Your task to perform on an android device: Search for Italian restaurants on Maps Image 0: 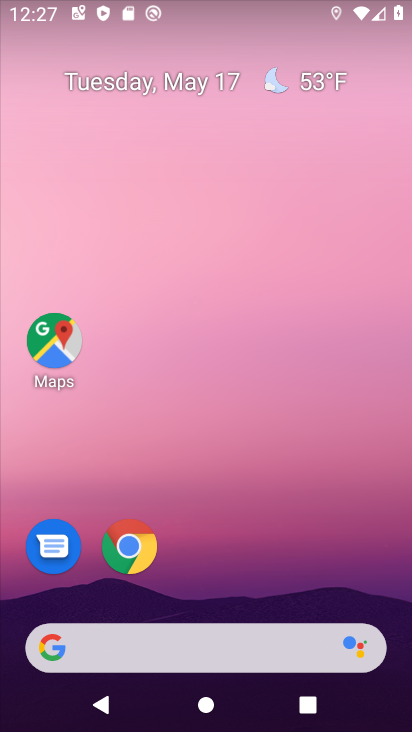
Step 0: drag from (229, 548) to (196, 64)
Your task to perform on an android device: Search for Italian restaurants on Maps Image 1: 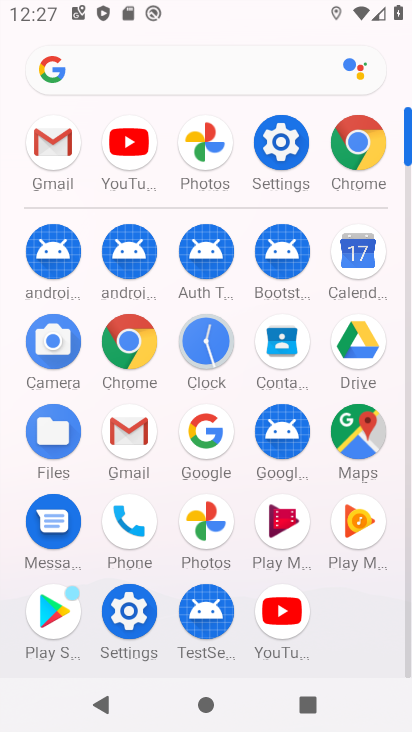
Step 1: drag from (207, 433) to (167, 405)
Your task to perform on an android device: Search for Italian restaurants on Maps Image 2: 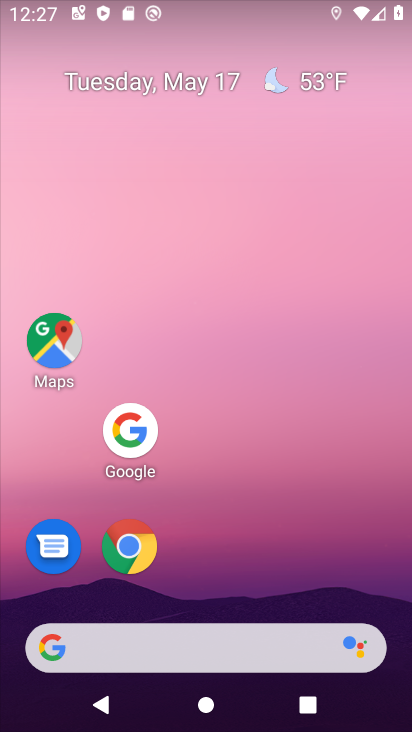
Step 2: click (85, 345)
Your task to perform on an android device: Search for Italian restaurants on Maps Image 3: 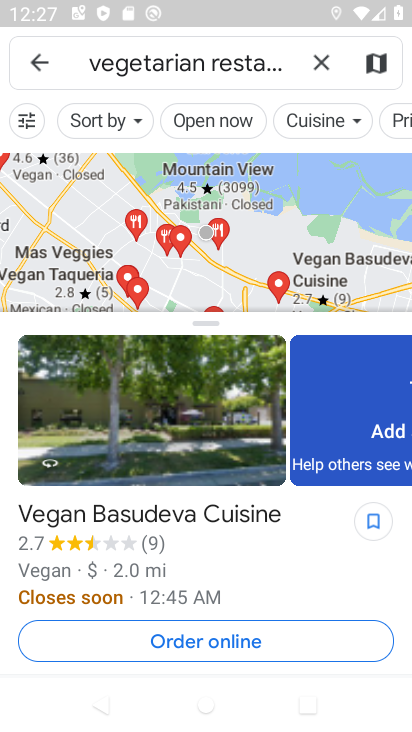
Step 3: click (318, 63)
Your task to perform on an android device: Search for Italian restaurants on Maps Image 4: 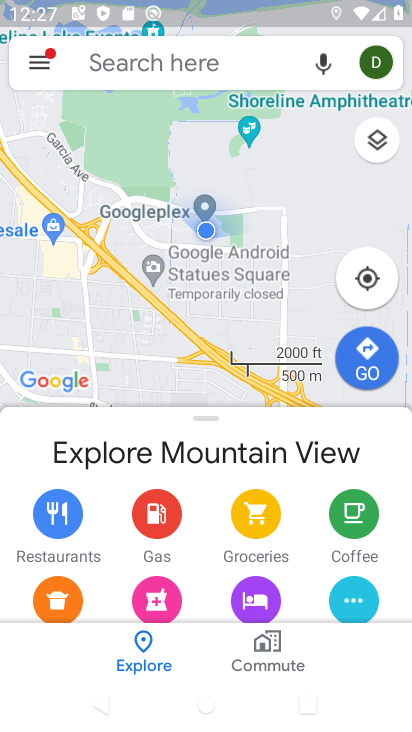
Step 4: click (171, 67)
Your task to perform on an android device: Search for Italian restaurants on Maps Image 5: 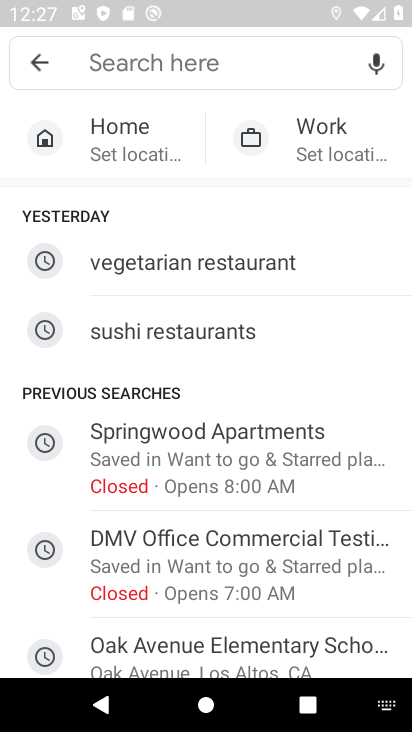
Step 5: type "italian restaurent"
Your task to perform on an android device: Search for Italian restaurants on Maps Image 6: 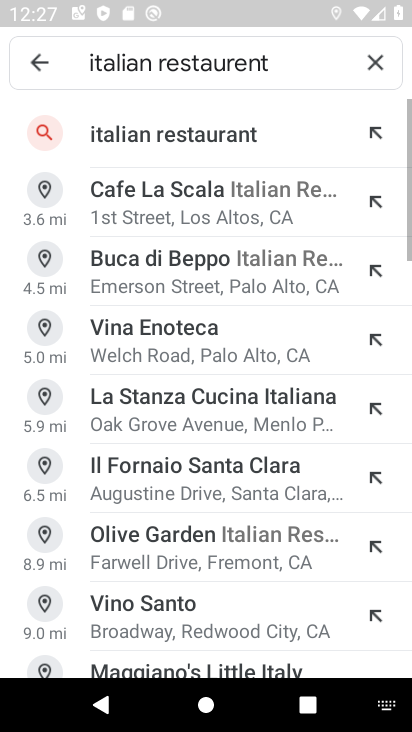
Step 6: click (212, 124)
Your task to perform on an android device: Search for Italian restaurants on Maps Image 7: 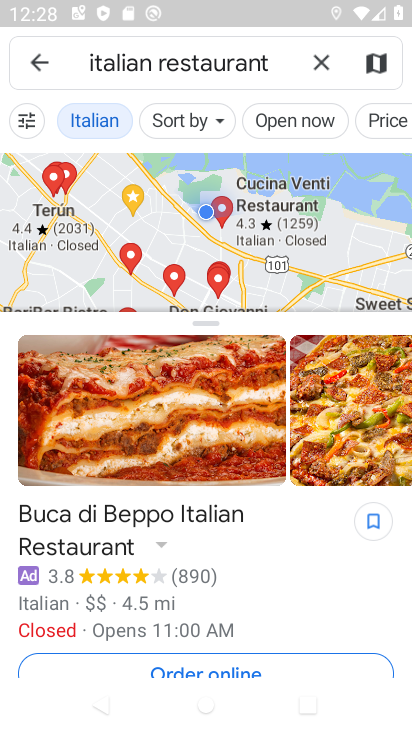
Step 7: task complete